Your task to perform on an android device: Search for the best rated phone case for the iPhone 8. Image 0: 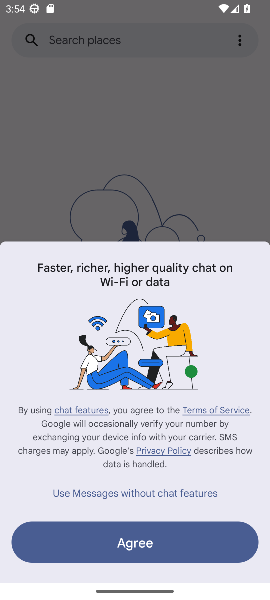
Step 0: press home button
Your task to perform on an android device: Search for the best rated phone case for the iPhone 8. Image 1: 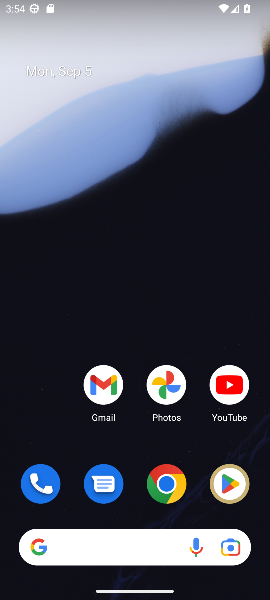
Step 1: click (171, 480)
Your task to perform on an android device: Search for the best rated phone case for the iPhone 8. Image 2: 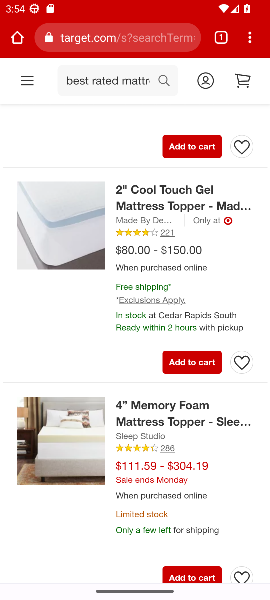
Step 2: click (130, 39)
Your task to perform on an android device: Search for the best rated phone case for the iPhone 8. Image 3: 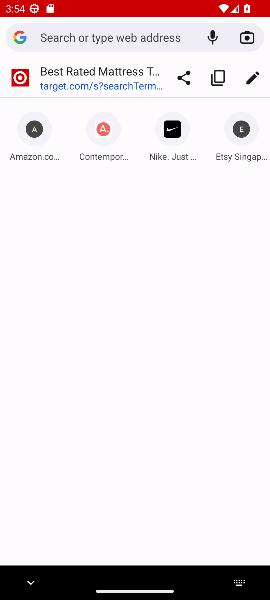
Step 3: type "best rated phone case for the iPhone 8"
Your task to perform on an android device: Search for the best rated phone case for the iPhone 8. Image 4: 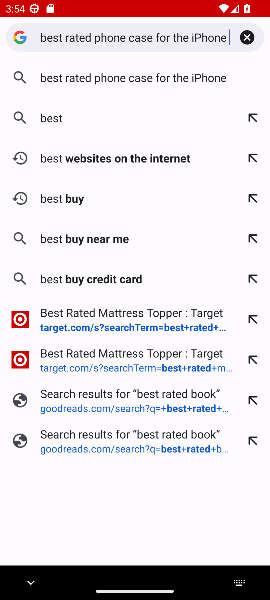
Step 4: press enter
Your task to perform on an android device: Search for the best rated phone case for the iPhone 8. Image 5: 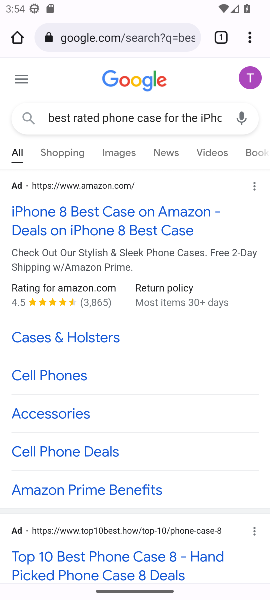
Step 5: task complete